Your task to perform on an android device: Open Chrome and go to settings Image 0: 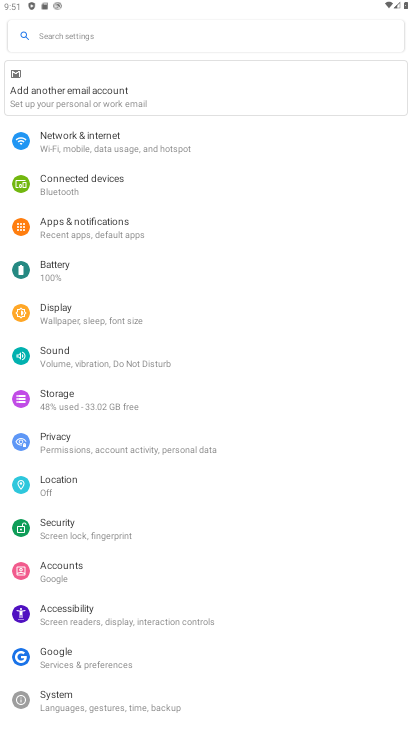
Step 0: press home button
Your task to perform on an android device: Open Chrome and go to settings Image 1: 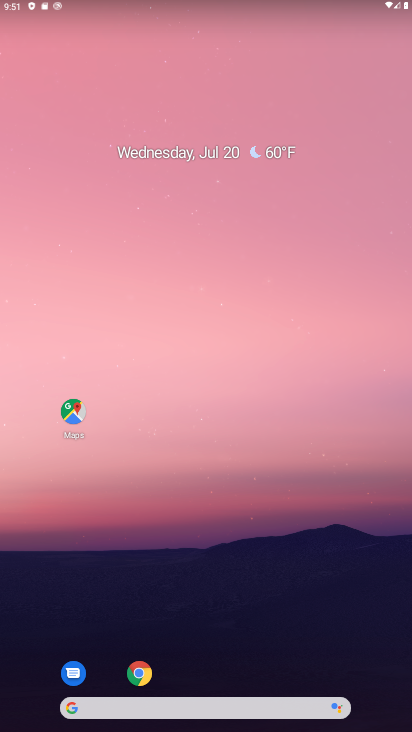
Step 1: click (137, 673)
Your task to perform on an android device: Open Chrome and go to settings Image 2: 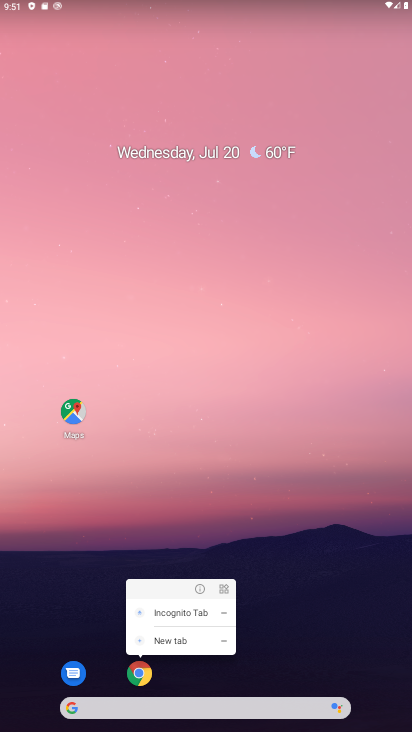
Step 2: click (135, 670)
Your task to perform on an android device: Open Chrome and go to settings Image 3: 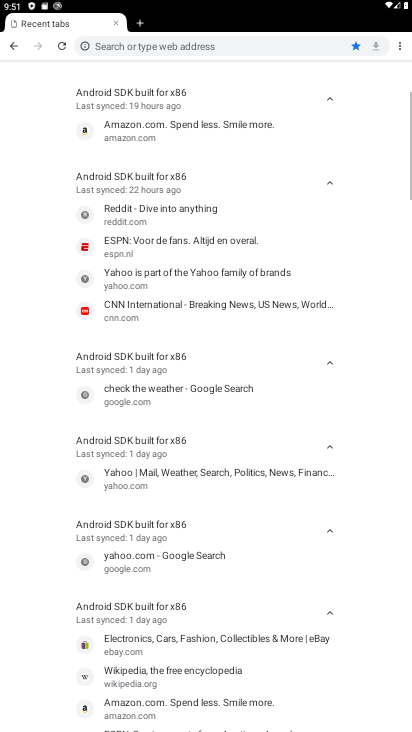
Step 3: click (402, 47)
Your task to perform on an android device: Open Chrome and go to settings Image 4: 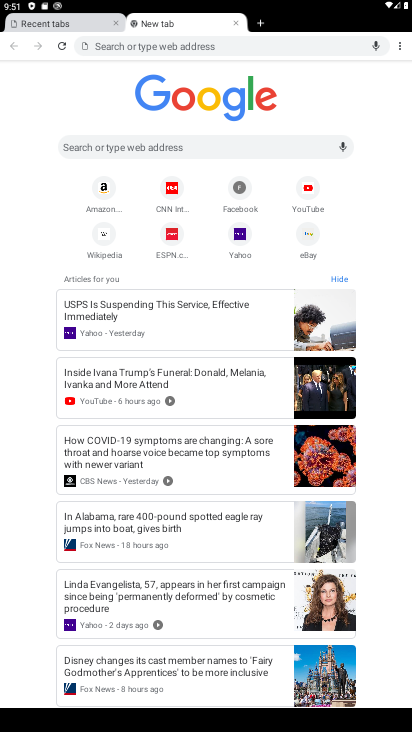
Step 4: click (398, 54)
Your task to perform on an android device: Open Chrome and go to settings Image 5: 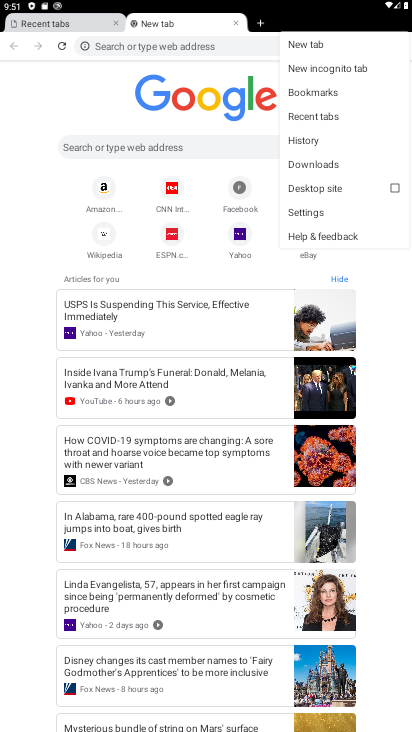
Step 5: click (299, 208)
Your task to perform on an android device: Open Chrome and go to settings Image 6: 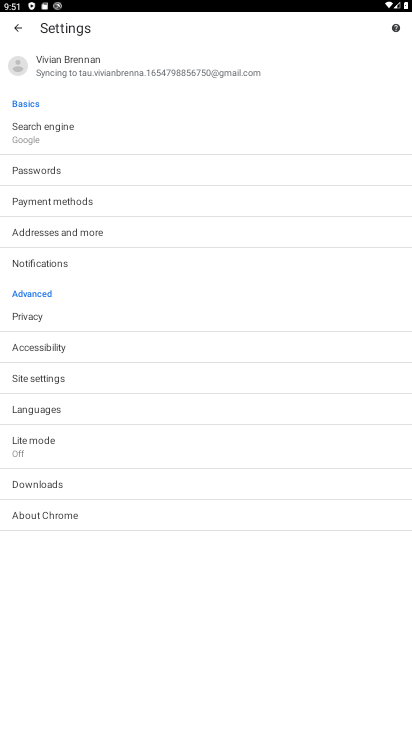
Step 6: task complete